Your task to perform on an android device: Search for seafood restaurants on Google Maps Image 0: 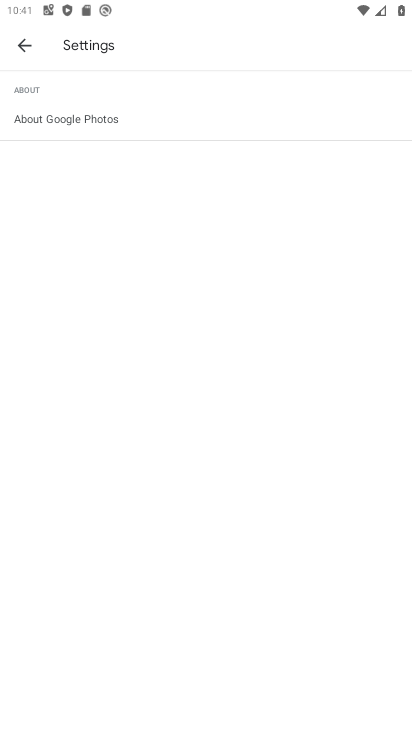
Step 0: press home button
Your task to perform on an android device: Search for seafood restaurants on Google Maps Image 1: 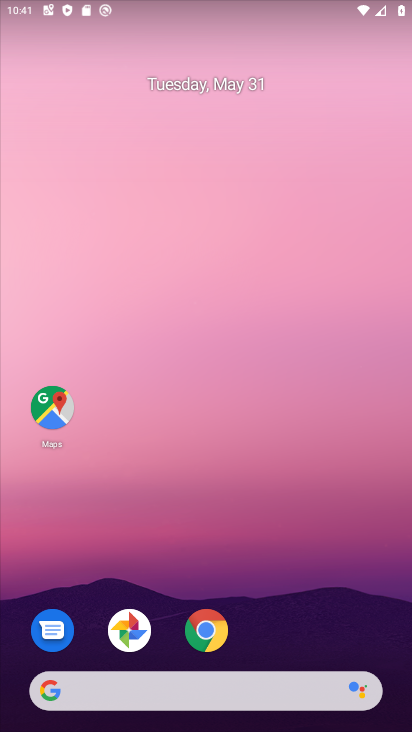
Step 1: drag from (264, 469) to (252, 201)
Your task to perform on an android device: Search for seafood restaurants on Google Maps Image 2: 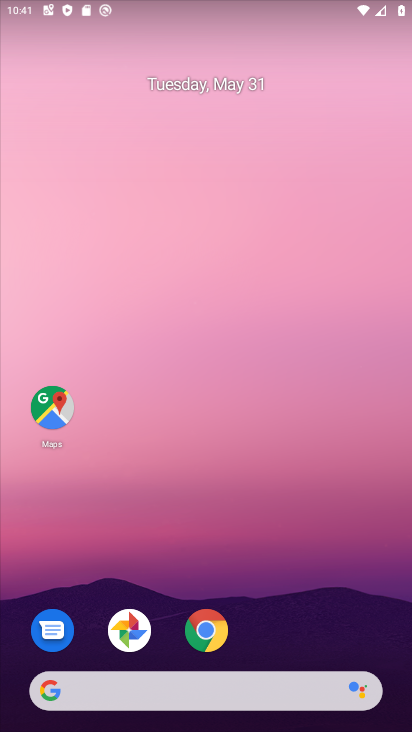
Step 2: drag from (280, 611) to (261, 198)
Your task to perform on an android device: Search for seafood restaurants on Google Maps Image 3: 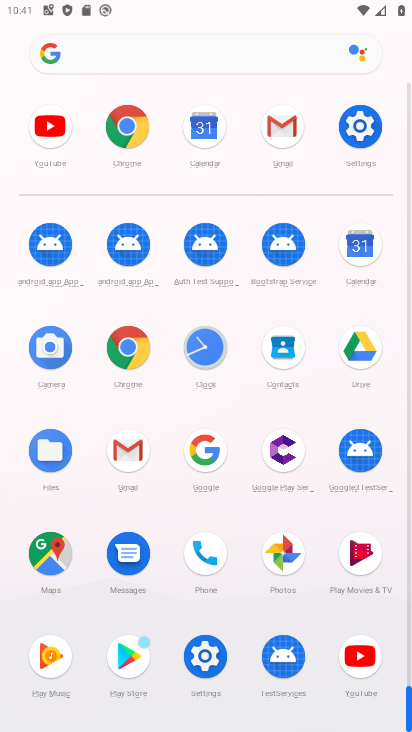
Step 3: click (46, 553)
Your task to perform on an android device: Search for seafood restaurants on Google Maps Image 4: 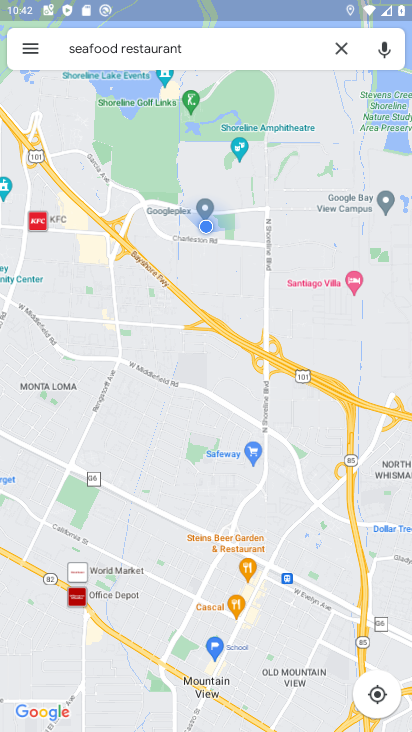
Step 4: task complete